Your task to perform on an android device: toggle airplane mode Image 0: 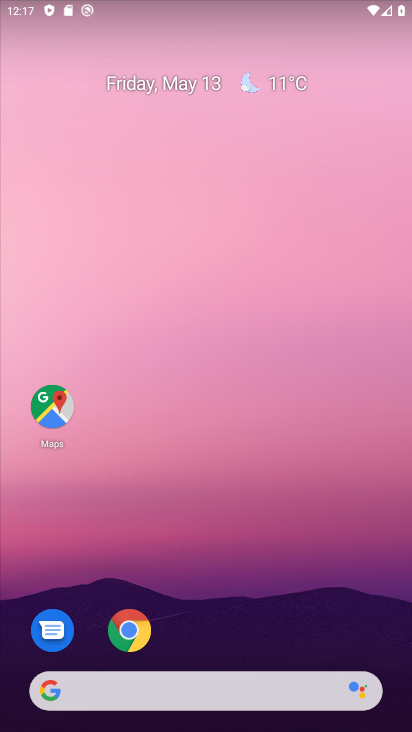
Step 0: drag from (304, 631) to (259, 38)
Your task to perform on an android device: toggle airplane mode Image 1: 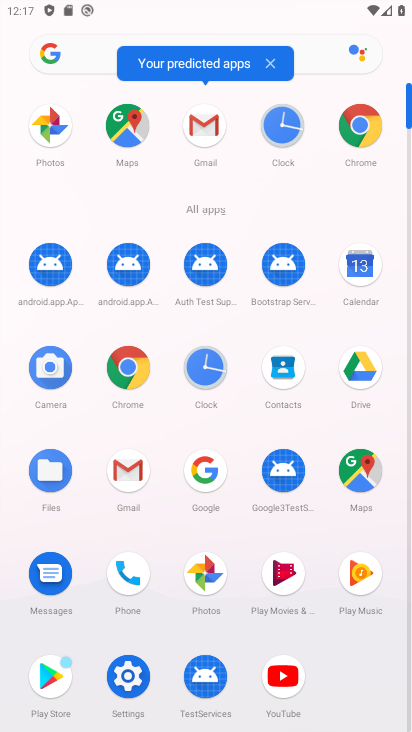
Step 1: click (122, 685)
Your task to perform on an android device: toggle airplane mode Image 2: 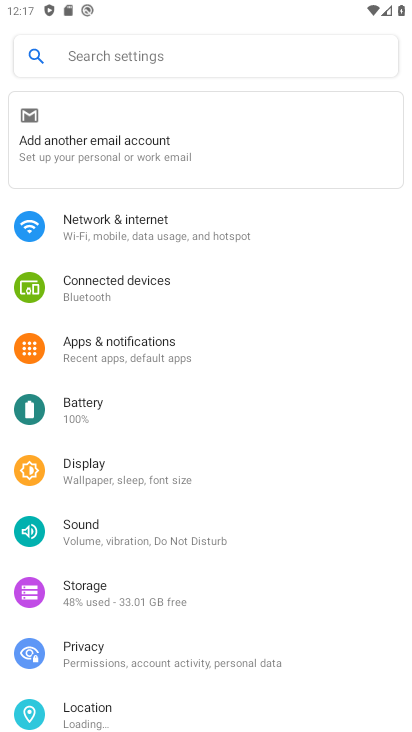
Step 2: click (128, 233)
Your task to perform on an android device: toggle airplane mode Image 3: 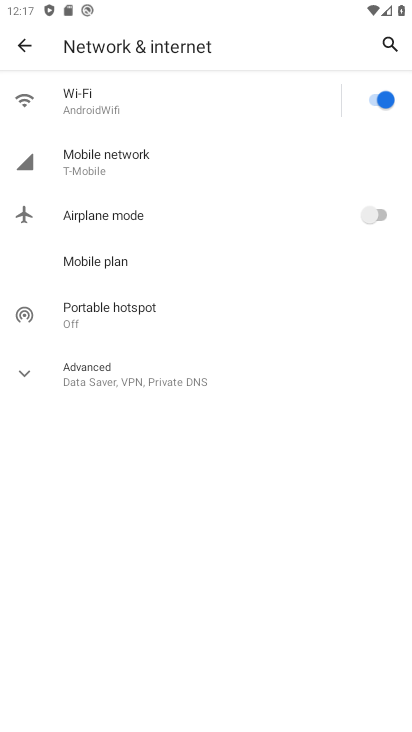
Step 3: click (373, 220)
Your task to perform on an android device: toggle airplane mode Image 4: 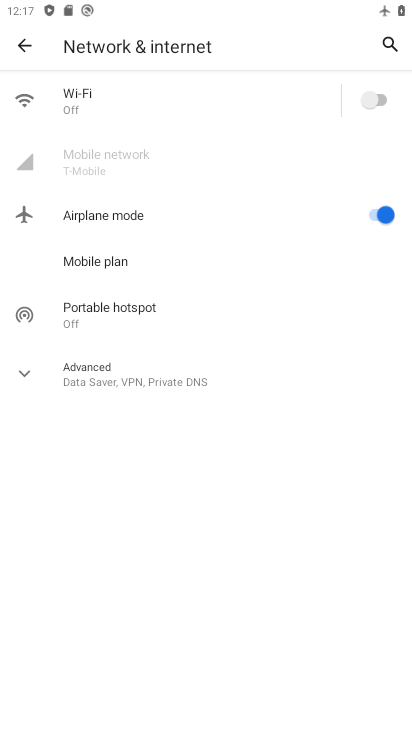
Step 4: task complete